Your task to perform on an android device: Show the shopping cart on costco.com. Image 0: 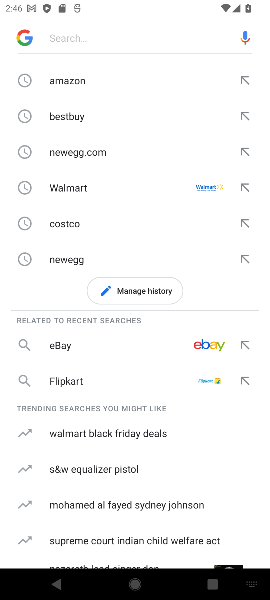
Step 0: click (64, 222)
Your task to perform on an android device: Show the shopping cart on costco.com. Image 1: 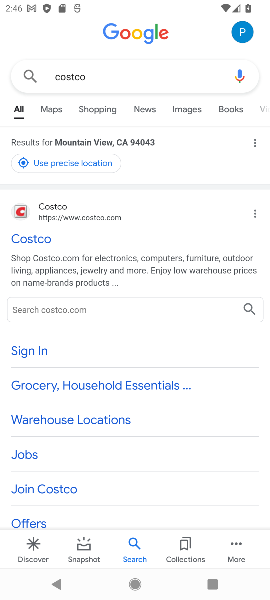
Step 1: click (40, 242)
Your task to perform on an android device: Show the shopping cart on costco.com. Image 2: 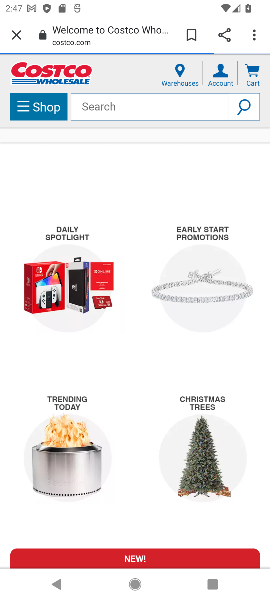
Step 2: click (253, 67)
Your task to perform on an android device: Show the shopping cart on costco.com. Image 3: 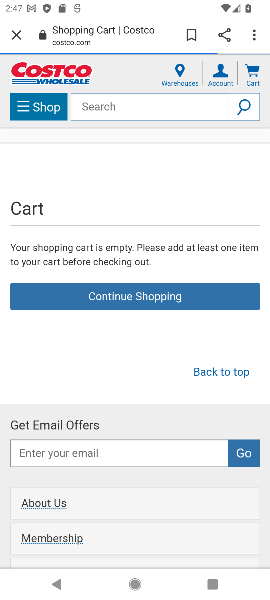
Step 3: task complete